Your task to perform on an android device: What is the recent news? Image 0: 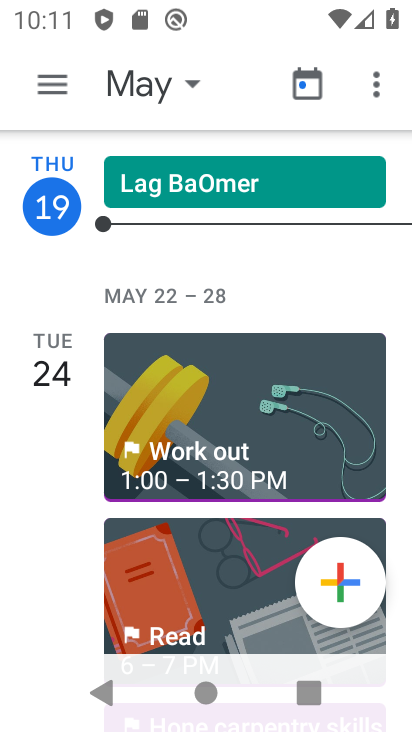
Step 0: press home button
Your task to perform on an android device: What is the recent news? Image 1: 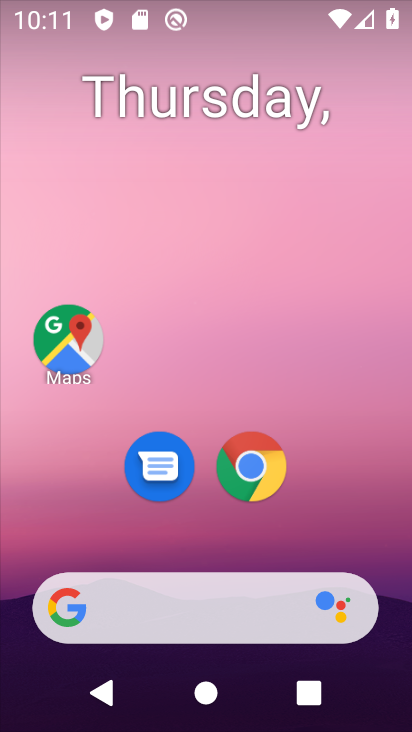
Step 1: drag from (313, 530) to (373, 139)
Your task to perform on an android device: What is the recent news? Image 2: 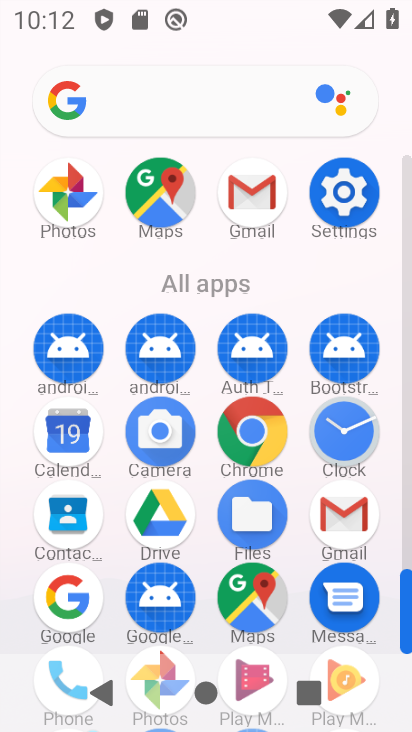
Step 2: click (58, 598)
Your task to perform on an android device: What is the recent news? Image 3: 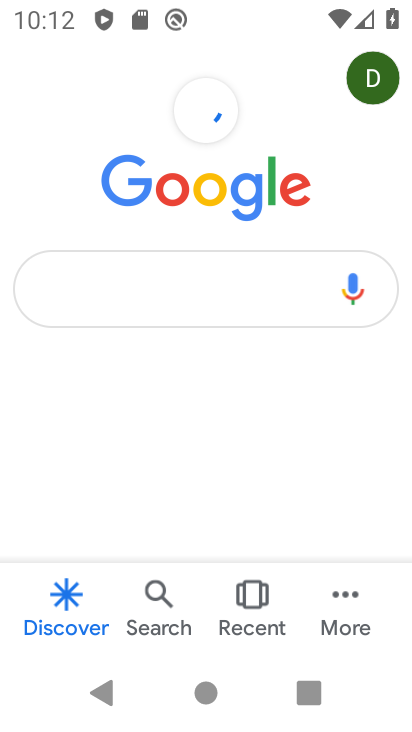
Step 3: click (99, 298)
Your task to perform on an android device: What is the recent news? Image 4: 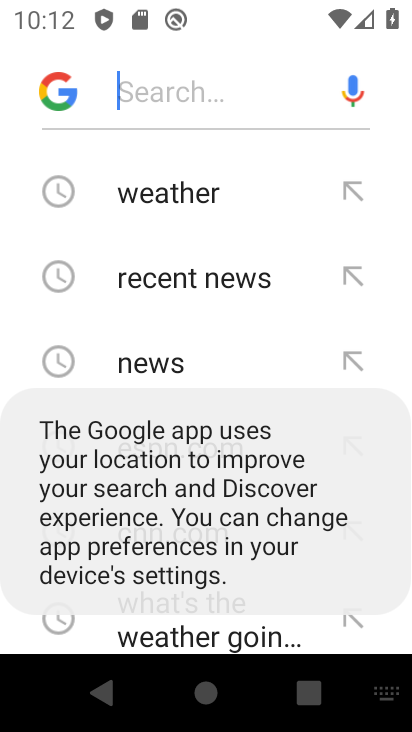
Step 4: click (221, 285)
Your task to perform on an android device: What is the recent news? Image 5: 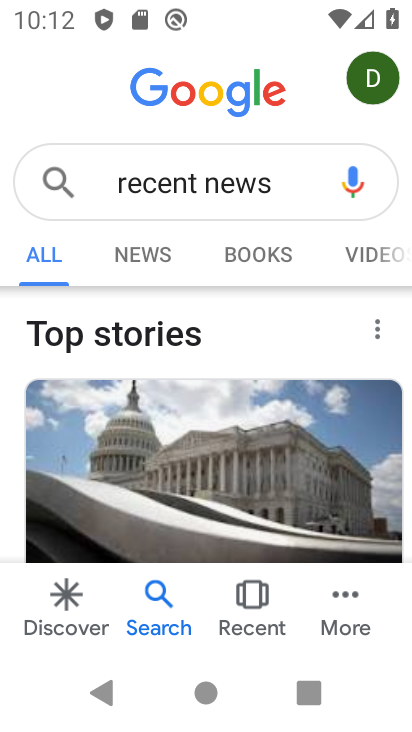
Step 5: task complete